Your task to perform on an android device: search for starred emails in the gmail app Image 0: 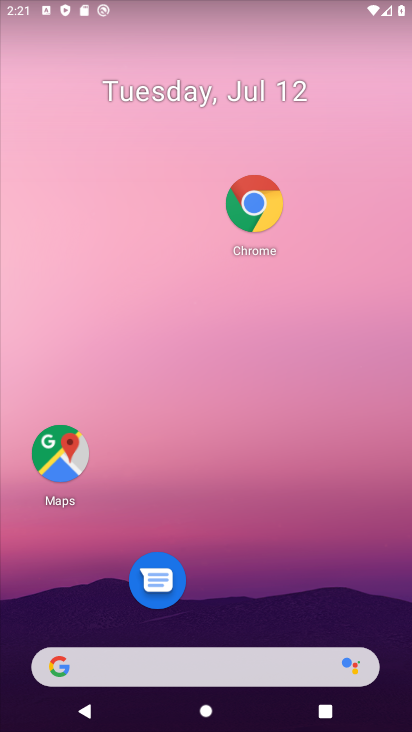
Step 0: drag from (233, 615) to (262, 85)
Your task to perform on an android device: search for starred emails in the gmail app Image 1: 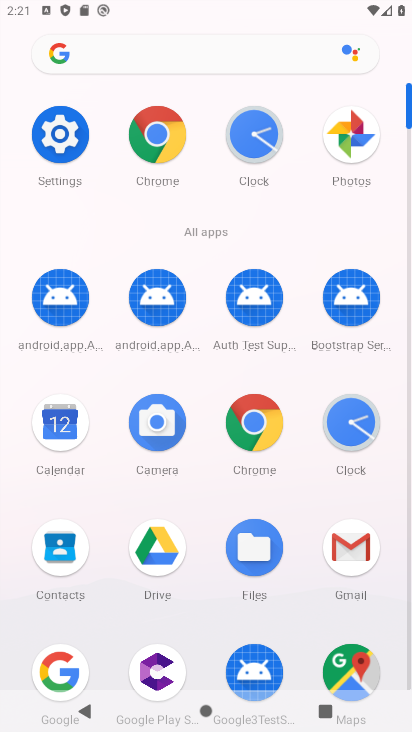
Step 1: click (359, 555)
Your task to perform on an android device: search for starred emails in the gmail app Image 2: 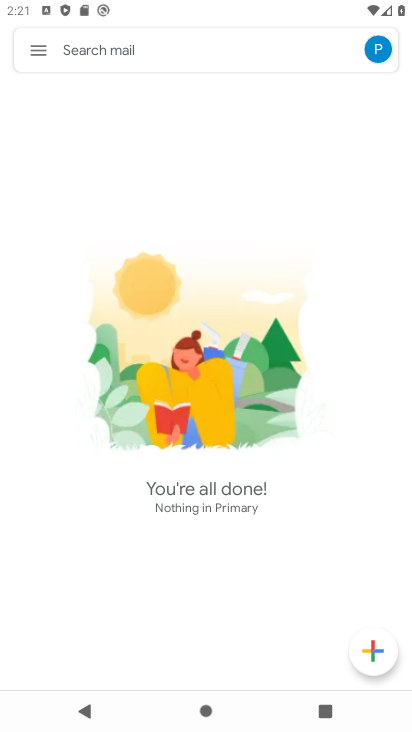
Step 2: click (52, 47)
Your task to perform on an android device: search for starred emails in the gmail app Image 3: 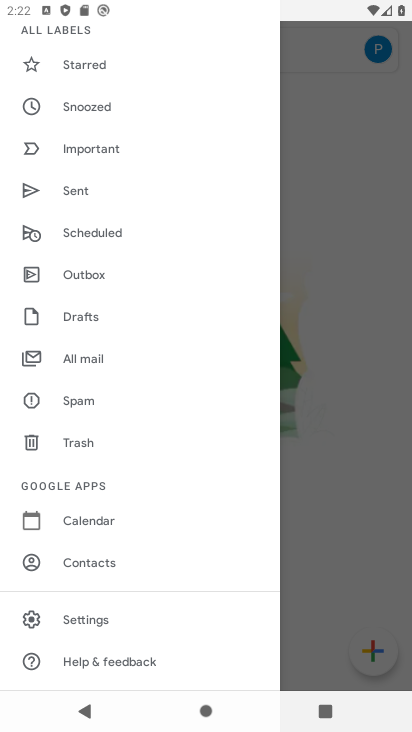
Step 3: click (102, 77)
Your task to perform on an android device: search for starred emails in the gmail app Image 4: 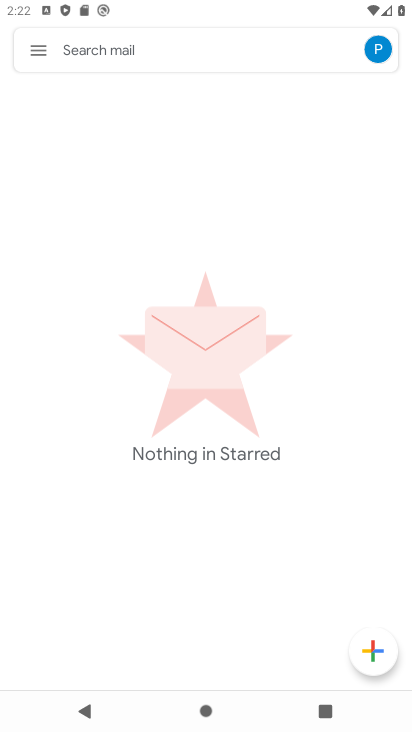
Step 4: task complete